Your task to perform on an android device: turn vacation reply on in the gmail app Image 0: 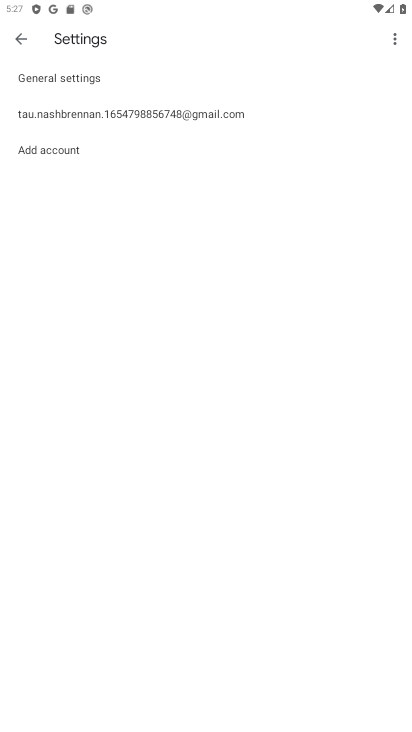
Step 0: press home button
Your task to perform on an android device: turn vacation reply on in the gmail app Image 1: 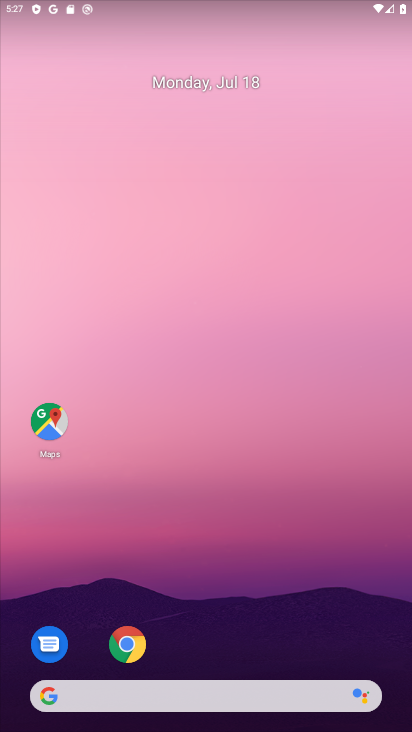
Step 1: drag from (257, 600) to (289, 92)
Your task to perform on an android device: turn vacation reply on in the gmail app Image 2: 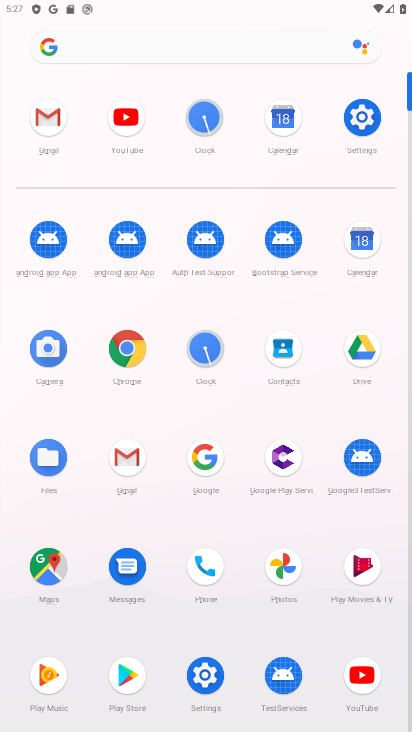
Step 2: click (42, 113)
Your task to perform on an android device: turn vacation reply on in the gmail app Image 3: 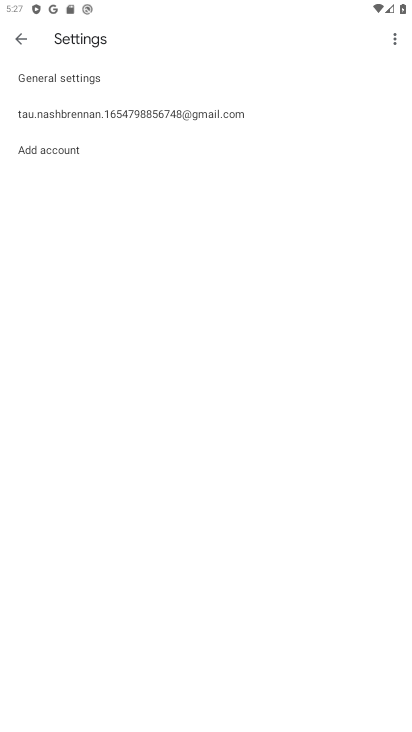
Step 3: click (95, 116)
Your task to perform on an android device: turn vacation reply on in the gmail app Image 4: 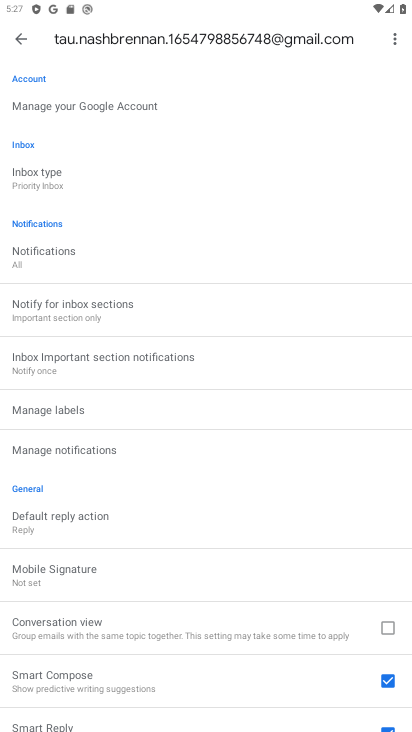
Step 4: drag from (170, 584) to (133, 171)
Your task to perform on an android device: turn vacation reply on in the gmail app Image 5: 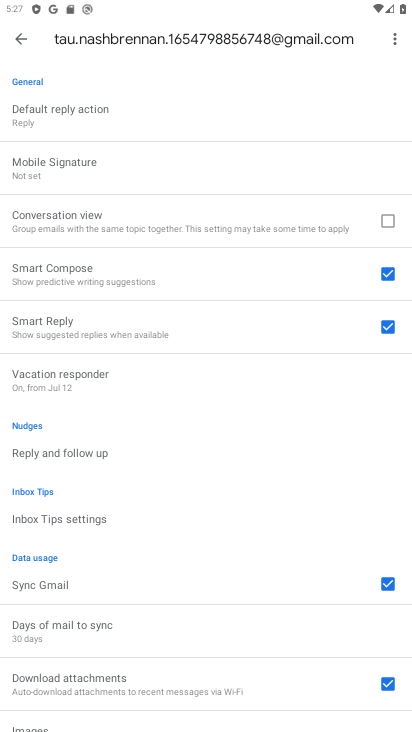
Step 5: drag from (230, 643) to (216, 192)
Your task to perform on an android device: turn vacation reply on in the gmail app Image 6: 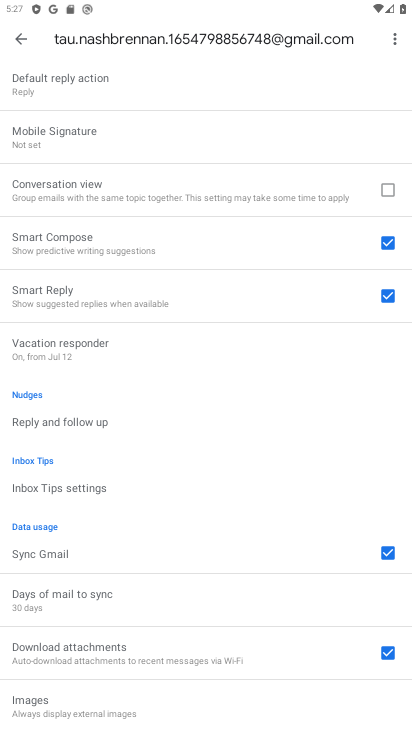
Step 6: click (104, 342)
Your task to perform on an android device: turn vacation reply on in the gmail app Image 7: 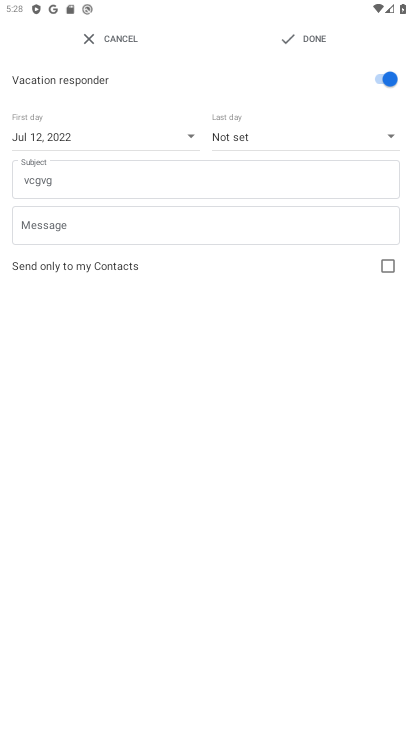
Step 7: click (317, 36)
Your task to perform on an android device: turn vacation reply on in the gmail app Image 8: 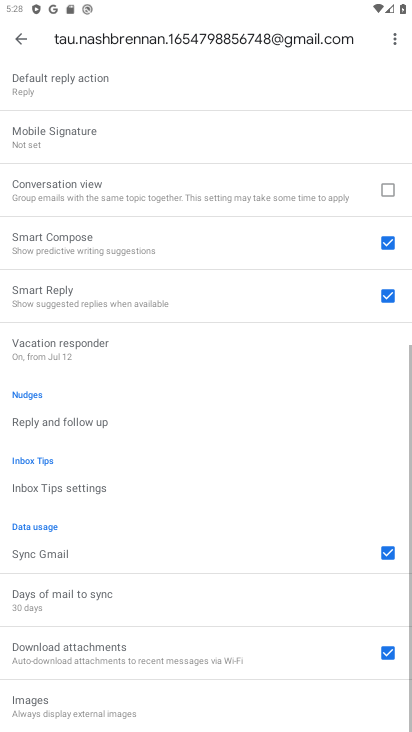
Step 8: task complete